Your task to perform on an android device: see tabs open on other devices in the chrome app Image 0: 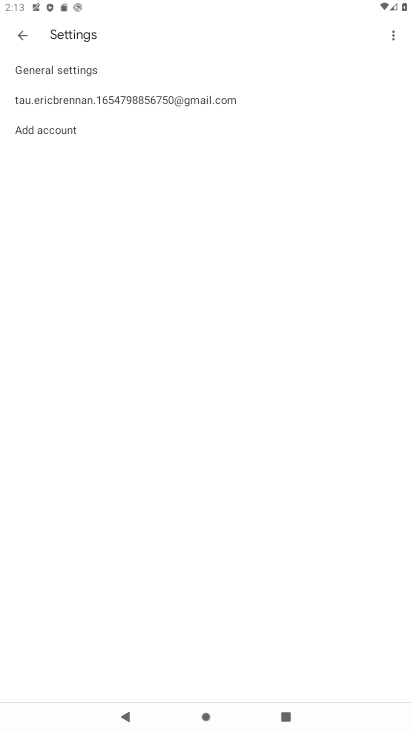
Step 0: press home button
Your task to perform on an android device: see tabs open on other devices in the chrome app Image 1: 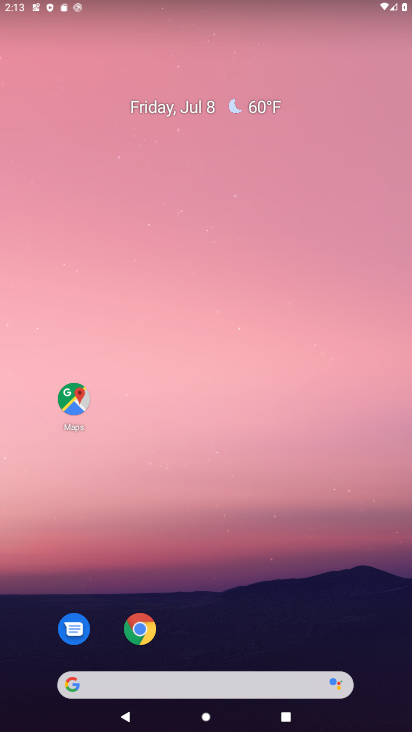
Step 1: click (154, 632)
Your task to perform on an android device: see tabs open on other devices in the chrome app Image 2: 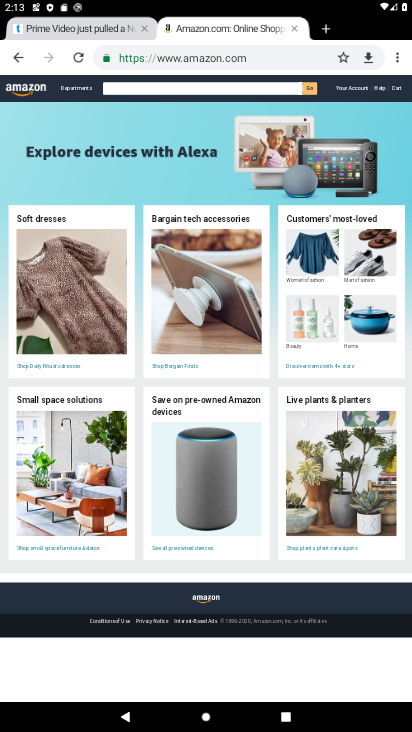
Step 2: click (395, 63)
Your task to perform on an android device: see tabs open on other devices in the chrome app Image 3: 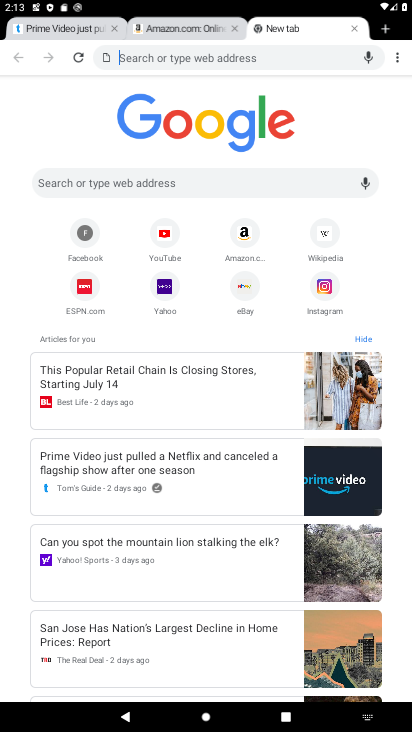
Step 3: task complete